Your task to perform on an android device: When is my next meeting? Image 0: 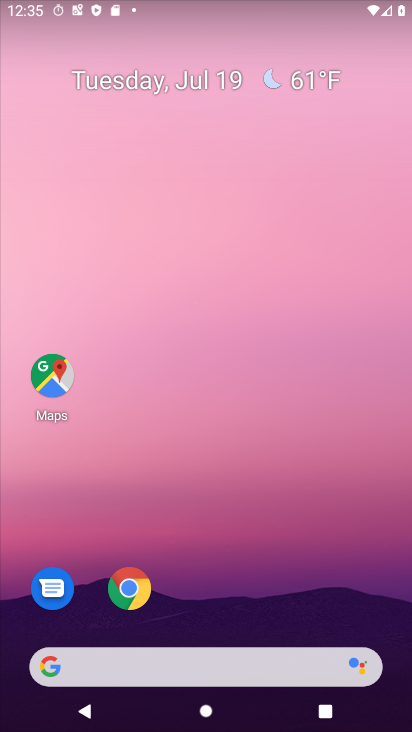
Step 0: drag from (308, 530) to (251, 72)
Your task to perform on an android device: When is my next meeting? Image 1: 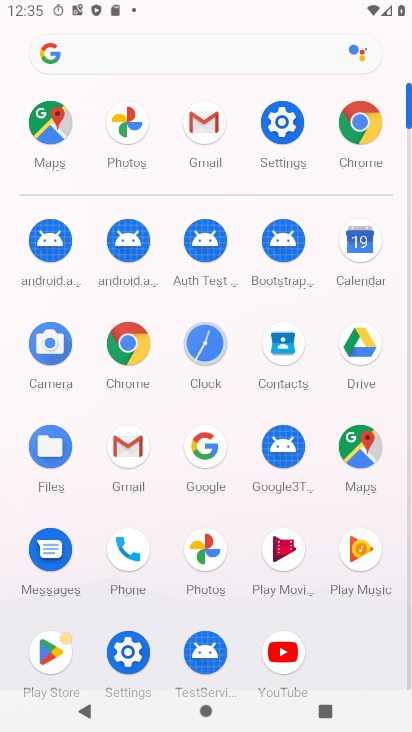
Step 1: click (374, 237)
Your task to perform on an android device: When is my next meeting? Image 2: 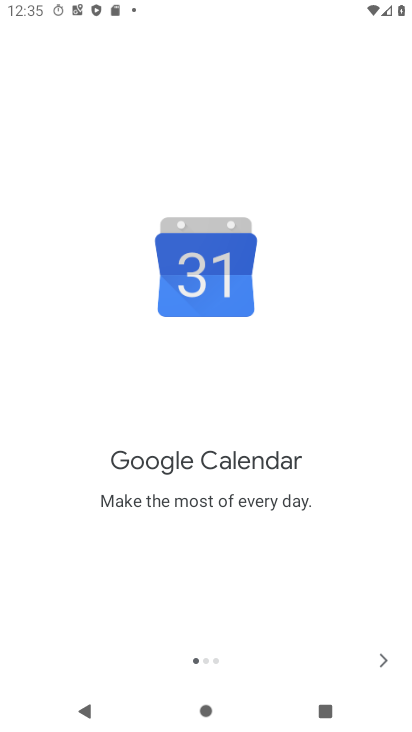
Step 2: click (387, 660)
Your task to perform on an android device: When is my next meeting? Image 3: 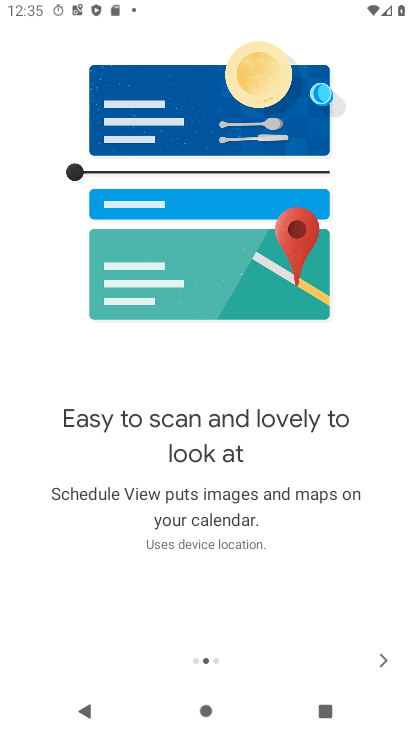
Step 3: click (387, 660)
Your task to perform on an android device: When is my next meeting? Image 4: 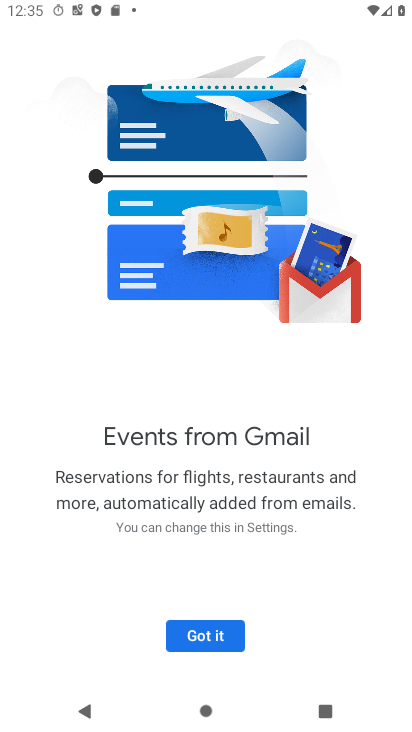
Step 4: click (212, 638)
Your task to perform on an android device: When is my next meeting? Image 5: 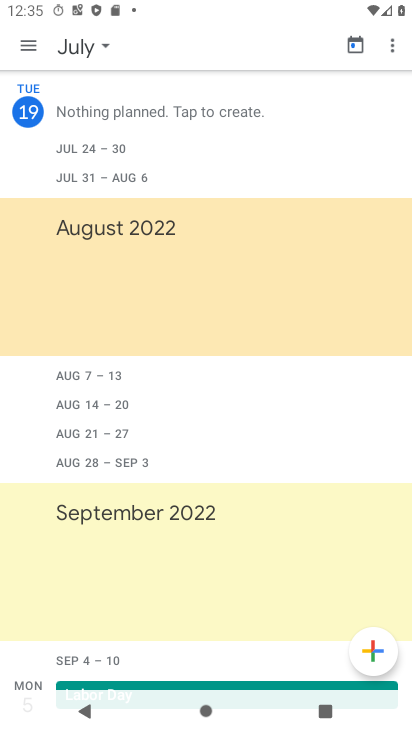
Step 5: click (83, 52)
Your task to perform on an android device: When is my next meeting? Image 6: 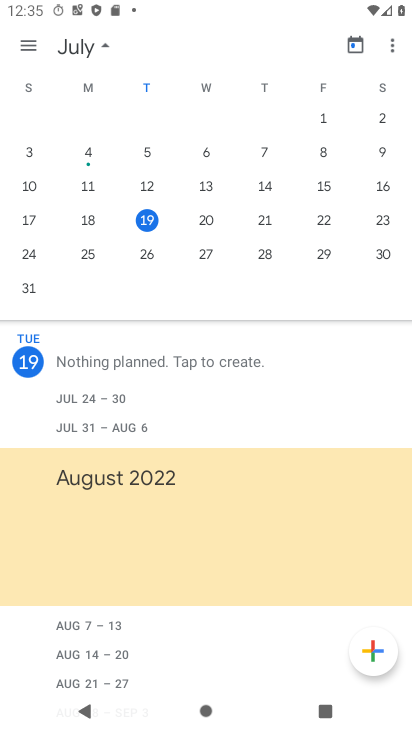
Step 6: click (150, 224)
Your task to perform on an android device: When is my next meeting? Image 7: 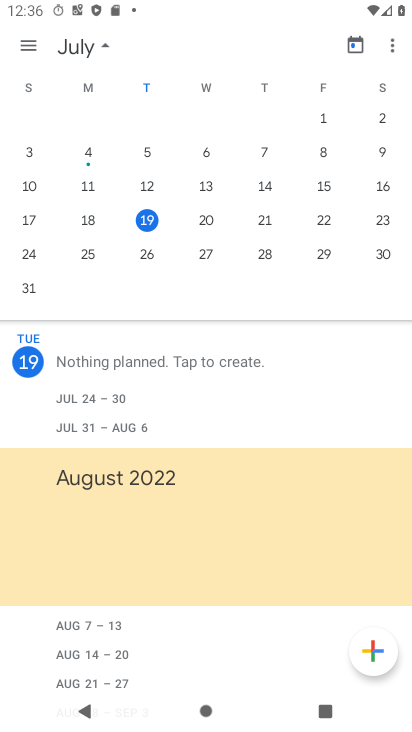
Step 7: click (150, 224)
Your task to perform on an android device: When is my next meeting? Image 8: 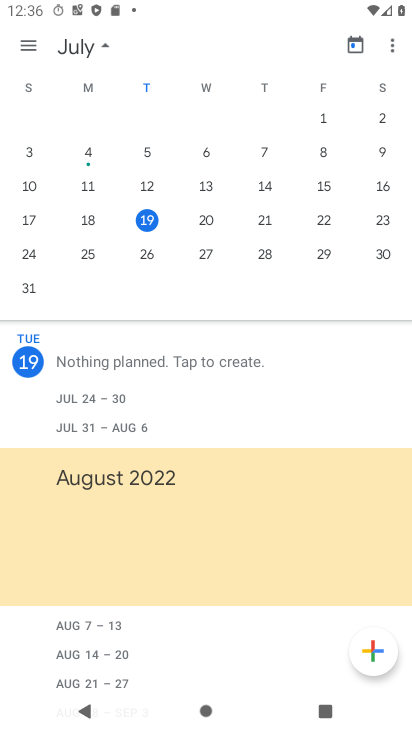
Step 8: task complete